Your task to perform on an android device: delete the emails in spam in the gmail app Image 0: 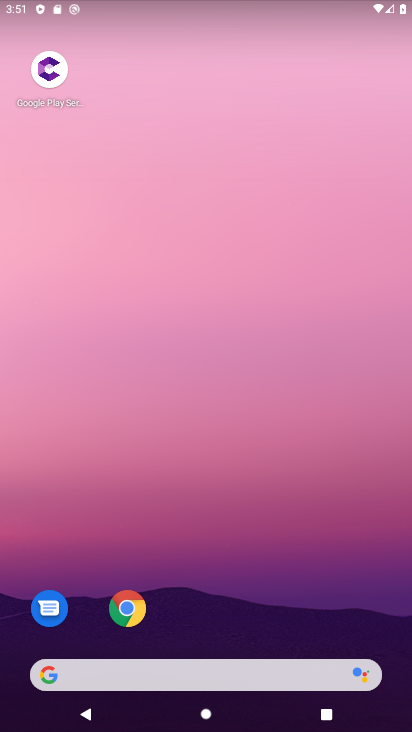
Step 0: drag from (129, 635) to (234, 53)
Your task to perform on an android device: delete the emails in spam in the gmail app Image 1: 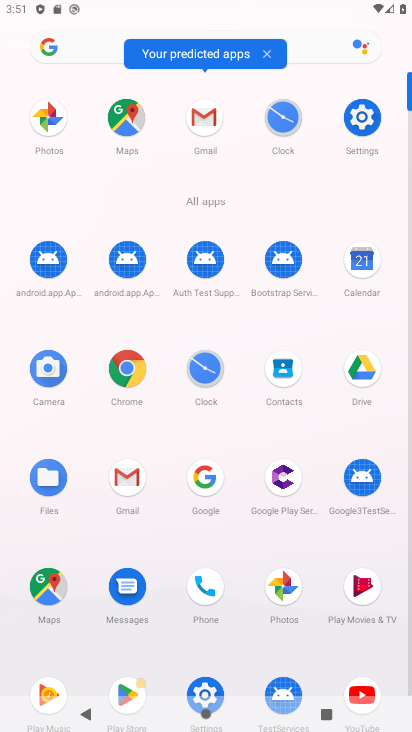
Step 1: click (139, 475)
Your task to perform on an android device: delete the emails in spam in the gmail app Image 2: 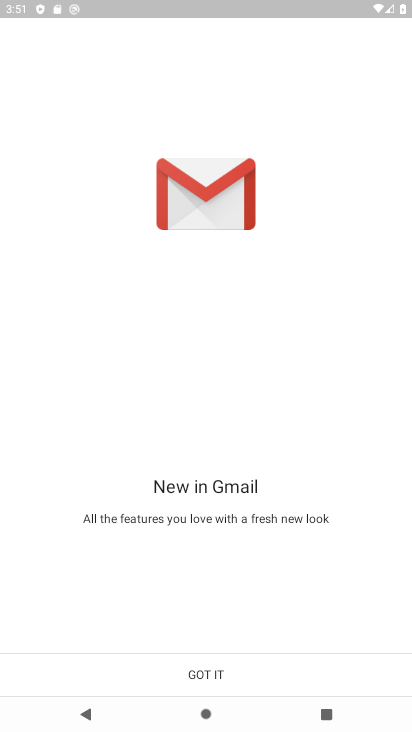
Step 2: click (201, 676)
Your task to perform on an android device: delete the emails in spam in the gmail app Image 3: 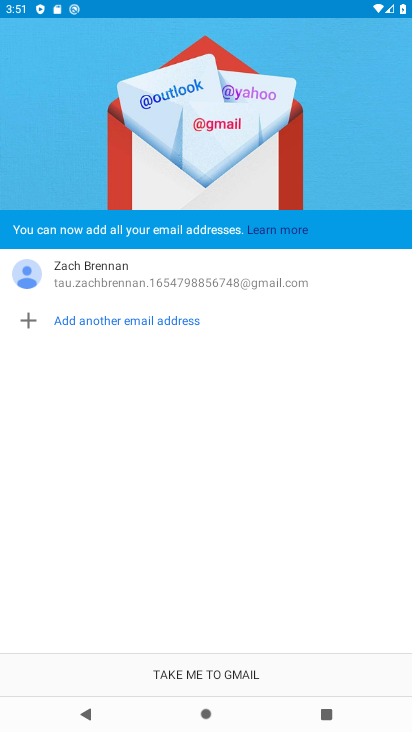
Step 3: click (201, 676)
Your task to perform on an android device: delete the emails in spam in the gmail app Image 4: 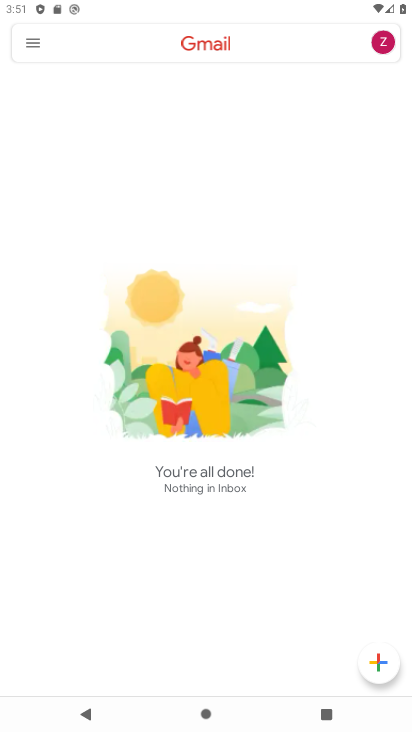
Step 4: click (28, 46)
Your task to perform on an android device: delete the emails in spam in the gmail app Image 5: 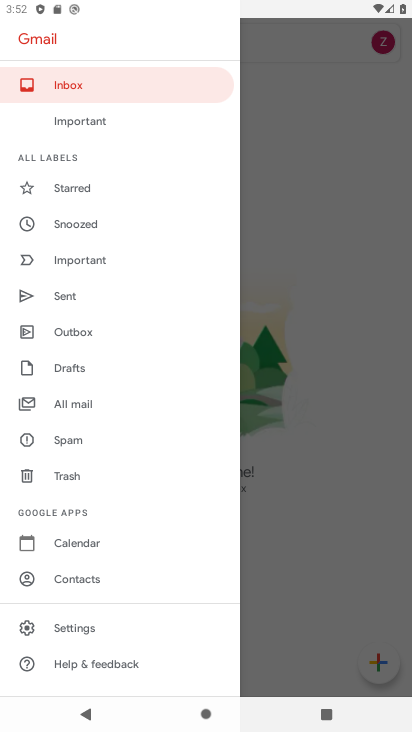
Step 5: click (67, 436)
Your task to perform on an android device: delete the emails in spam in the gmail app Image 6: 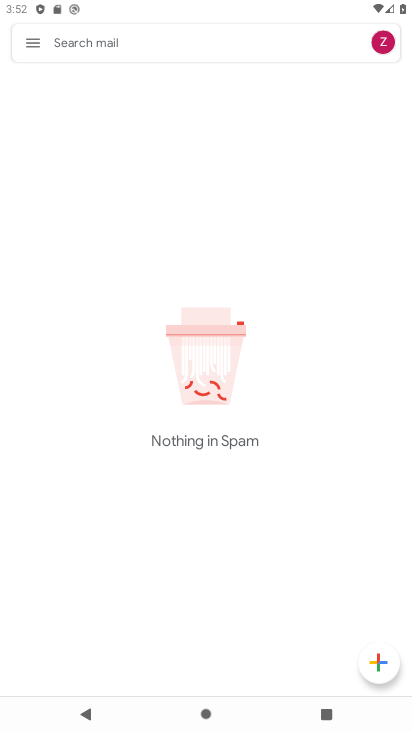
Step 6: task complete